Your task to perform on an android device: Open Android settings Image 0: 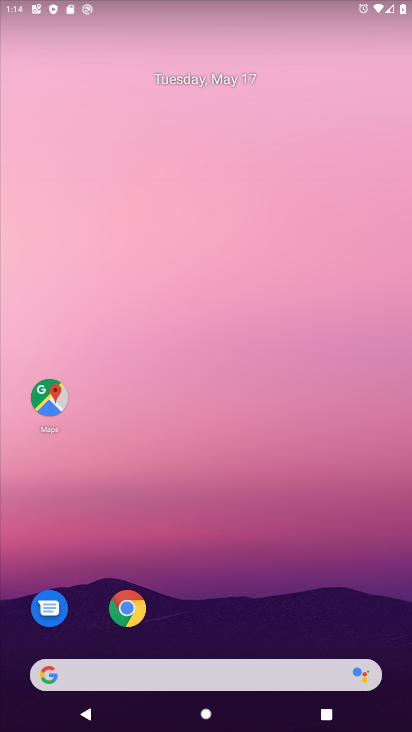
Step 0: drag from (272, 531) to (307, 245)
Your task to perform on an android device: Open Android settings Image 1: 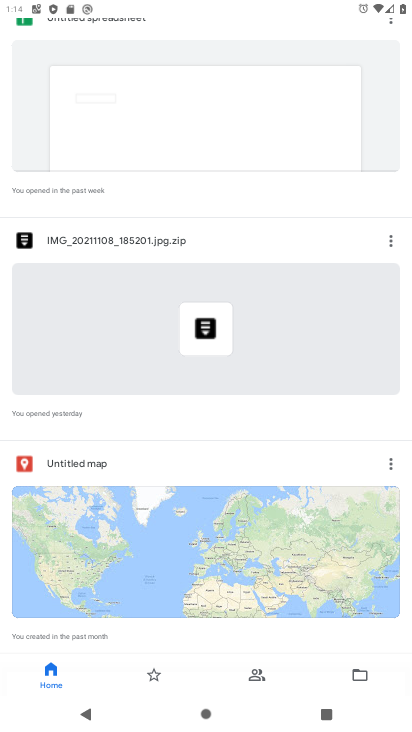
Step 1: press home button
Your task to perform on an android device: Open Android settings Image 2: 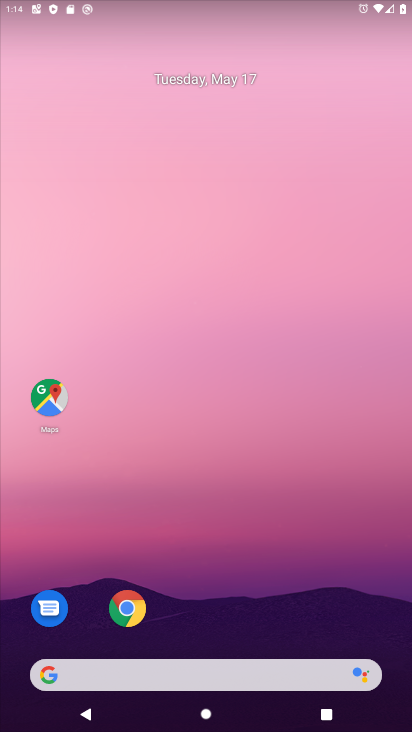
Step 2: drag from (216, 632) to (255, 66)
Your task to perform on an android device: Open Android settings Image 3: 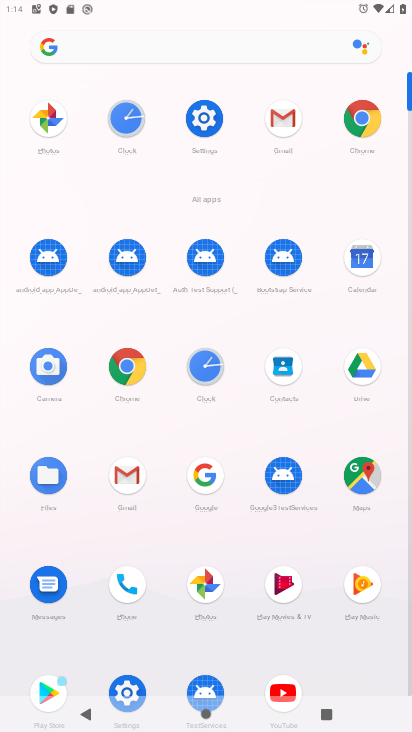
Step 3: click (206, 129)
Your task to perform on an android device: Open Android settings Image 4: 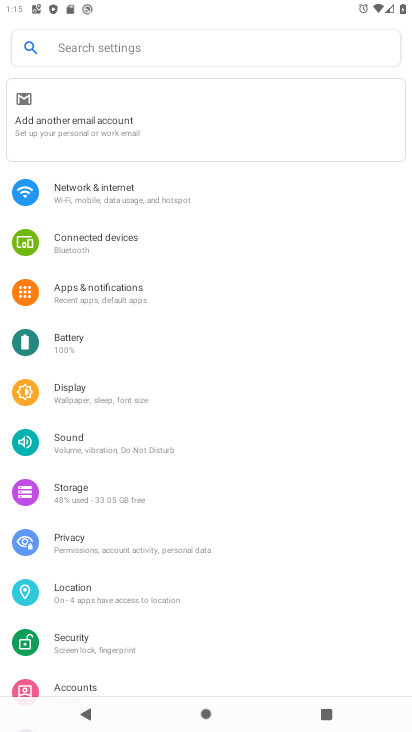
Step 4: task complete